Your task to perform on an android device: Open Android settings Image 0: 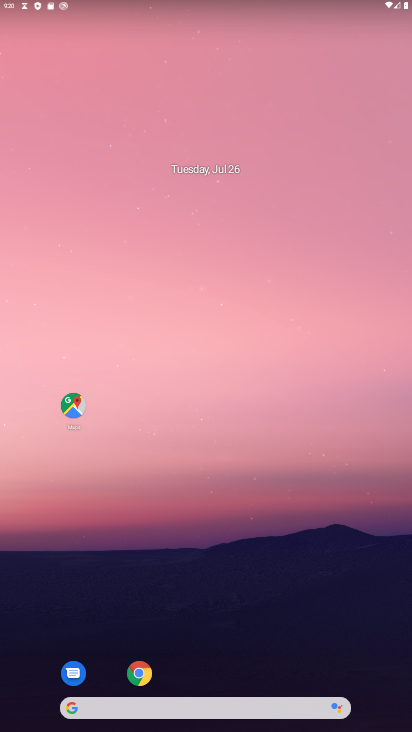
Step 0: drag from (195, 708) to (270, 10)
Your task to perform on an android device: Open Android settings Image 1: 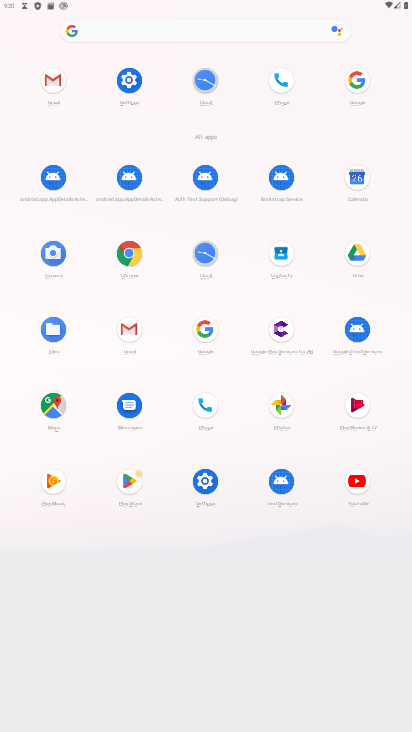
Step 1: click (129, 79)
Your task to perform on an android device: Open Android settings Image 2: 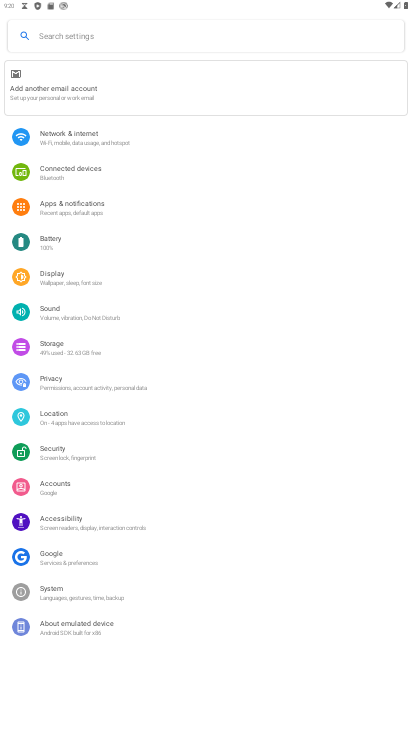
Step 2: task complete